Your task to perform on an android device: toggle improve location accuracy Image 0: 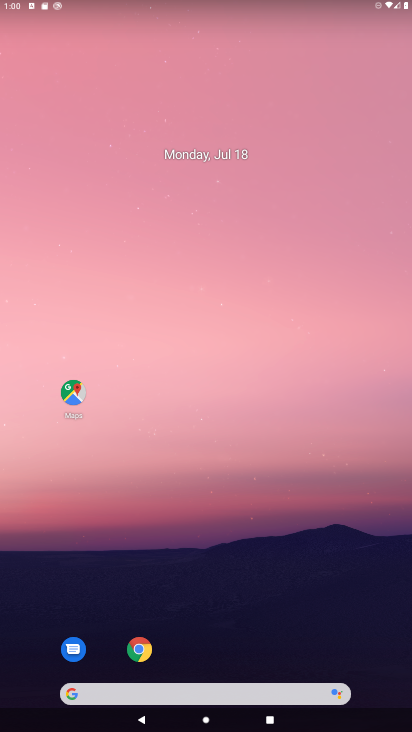
Step 0: drag from (379, 641) to (287, 196)
Your task to perform on an android device: toggle improve location accuracy Image 1: 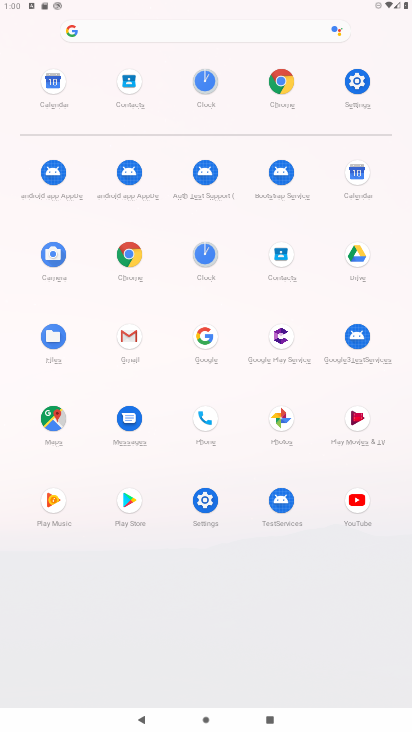
Step 1: click (203, 501)
Your task to perform on an android device: toggle improve location accuracy Image 2: 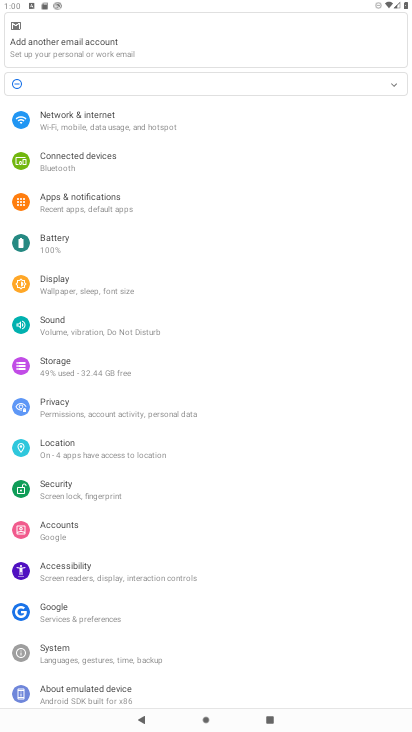
Step 2: click (57, 446)
Your task to perform on an android device: toggle improve location accuracy Image 3: 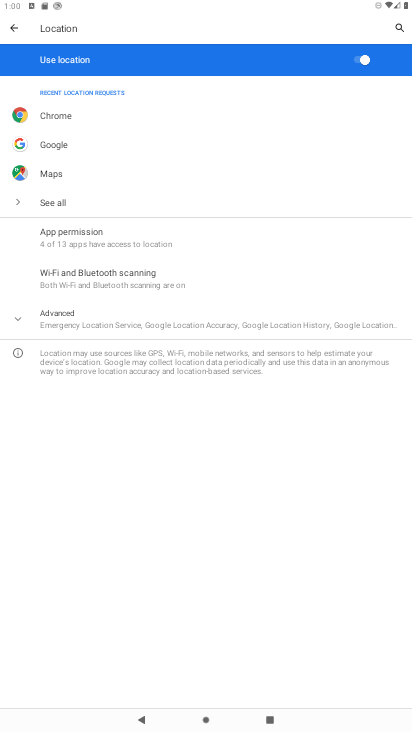
Step 3: click (11, 317)
Your task to perform on an android device: toggle improve location accuracy Image 4: 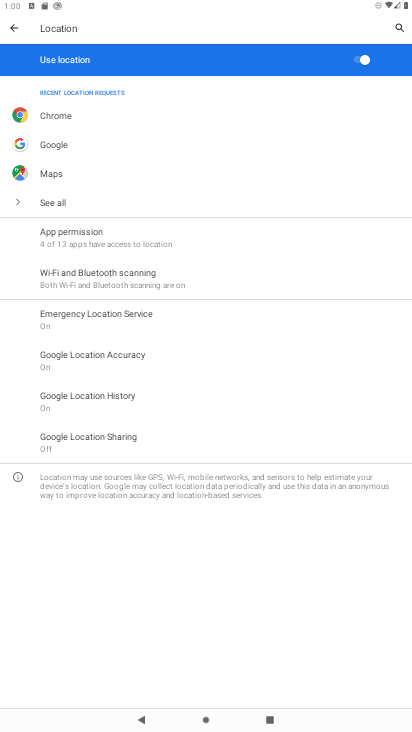
Step 4: click (77, 351)
Your task to perform on an android device: toggle improve location accuracy Image 5: 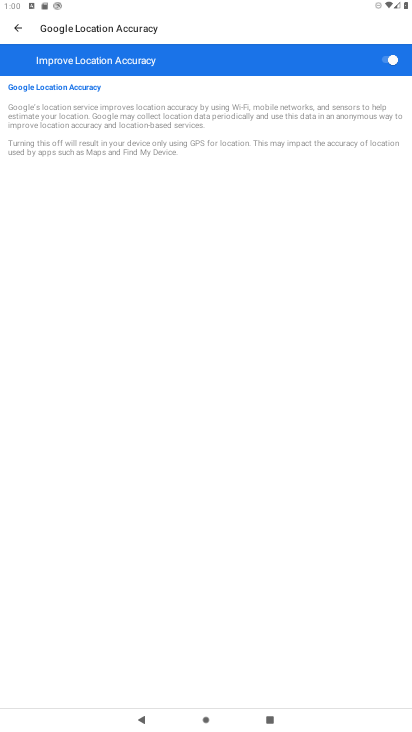
Step 5: click (387, 58)
Your task to perform on an android device: toggle improve location accuracy Image 6: 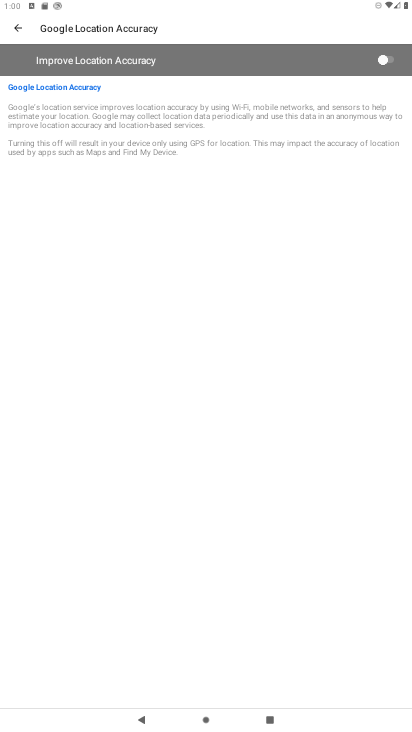
Step 6: task complete